Your task to perform on an android device: find snoozed emails in the gmail app Image 0: 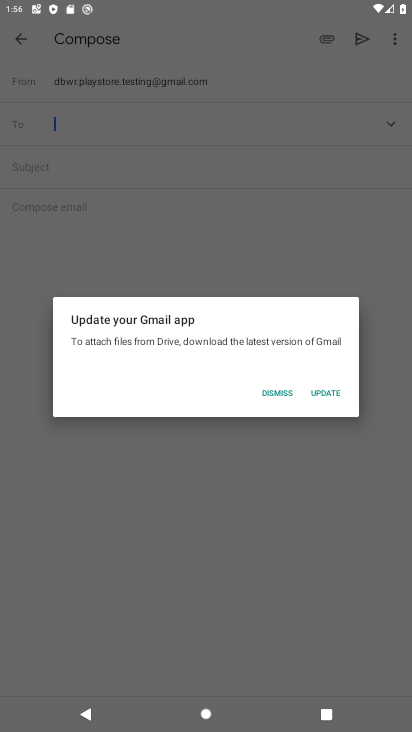
Step 0: press home button
Your task to perform on an android device: find snoozed emails in the gmail app Image 1: 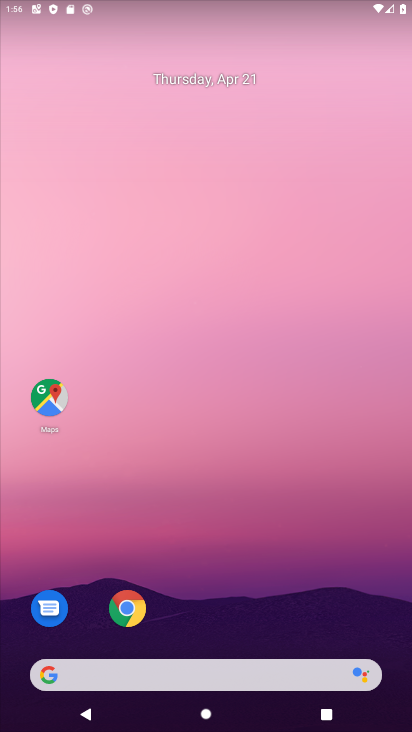
Step 1: drag from (223, 633) to (199, 150)
Your task to perform on an android device: find snoozed emails in the gmail app Image 2: 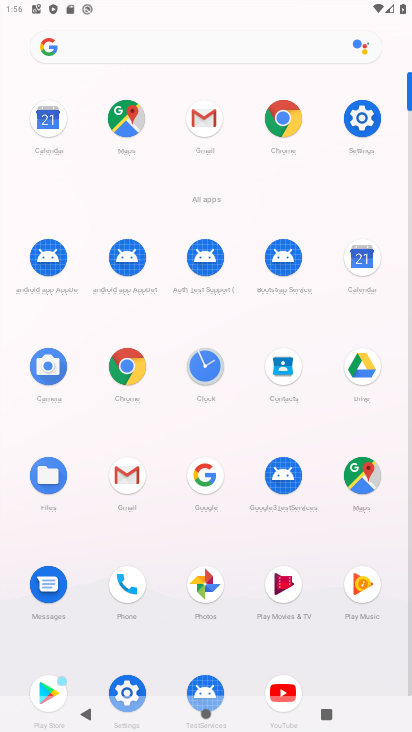
Step 2: click (141, 481)
Your task to perform on an android device: find snoozed emails in the gmail app Image 3: 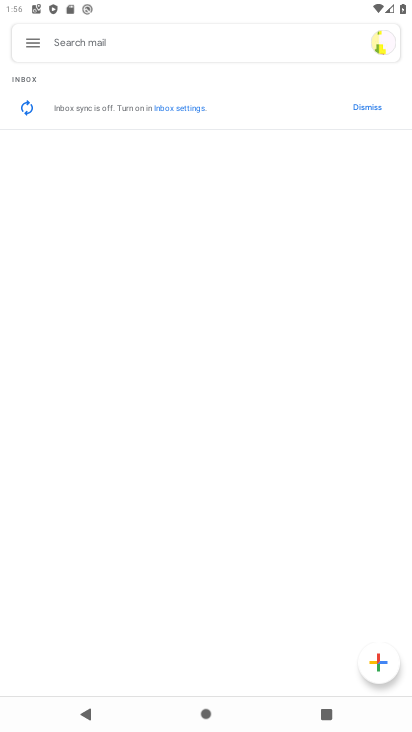
Step 3: click (28, 48)
Your task to perform on an android device: find snoozed emails in the gmail app Image 4: 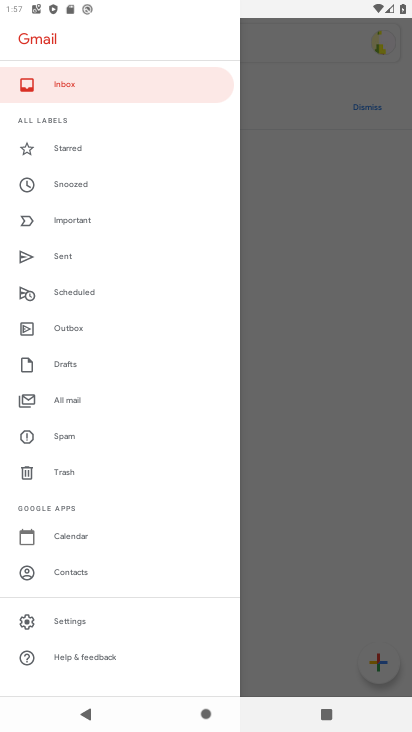
Step 4: click (84, 188)
Your task to perform on an android device: find snoozed emails in the gmail app Image 5: 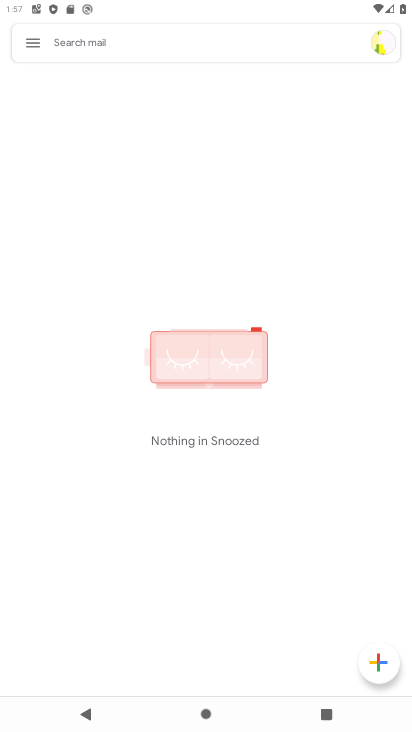
Step 5: task complete